Your task to perform on an android device: Open Amazon Image 0: 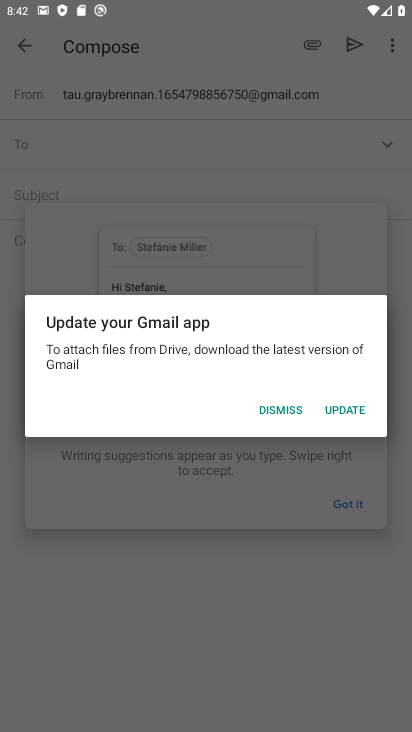
Step 0: press home button
Your task to perform on an android device: Open Amazon Image 1: 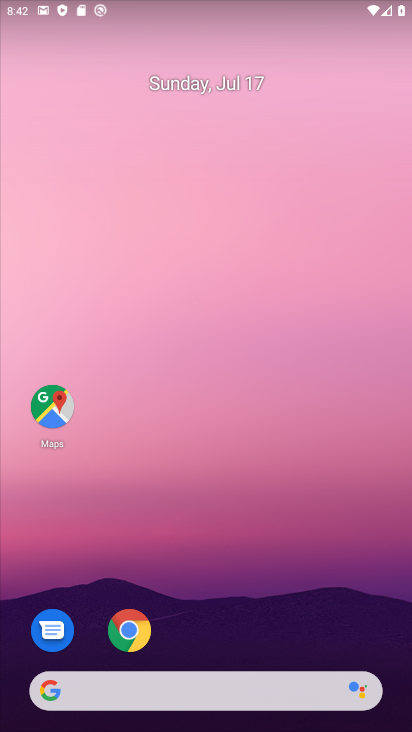
Step 1: drag from (349, 636) to (386, 128)
Your task to perform on an android device: Open Amazon Image 2: 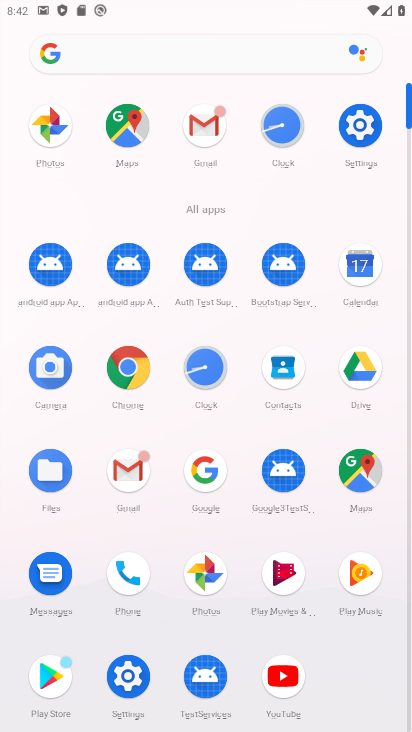
Step 2: click (131, 368)
Your task to perform on an android device: Open Amazon Image 3: 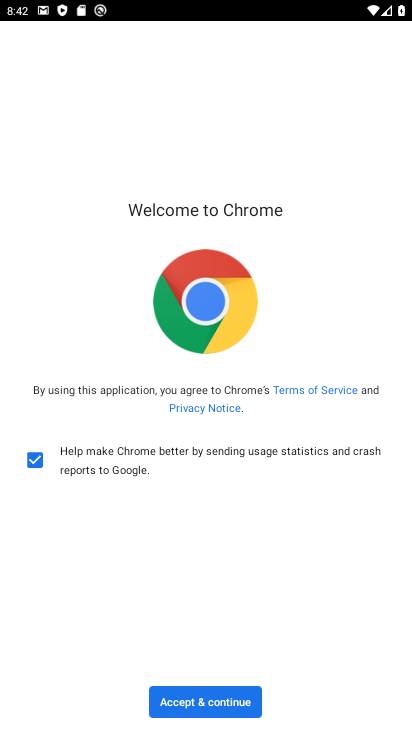
Step 3: click (207, 705)
Your task to perform on an android device: Open Amazon Image 4: 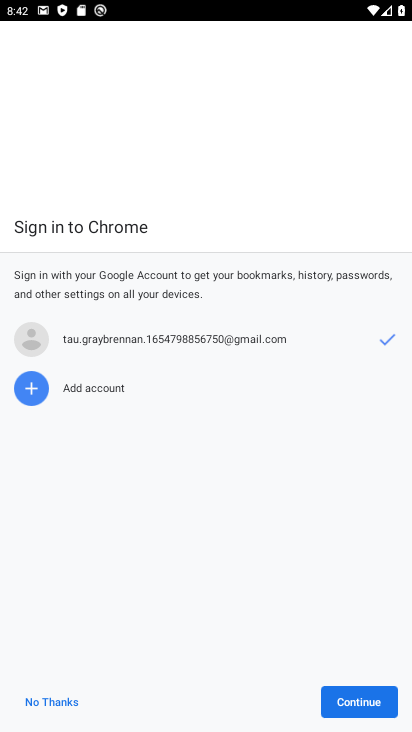
Step 4: click (352, 707)
Your task to perform on an android device: Open Amazon Image 5: 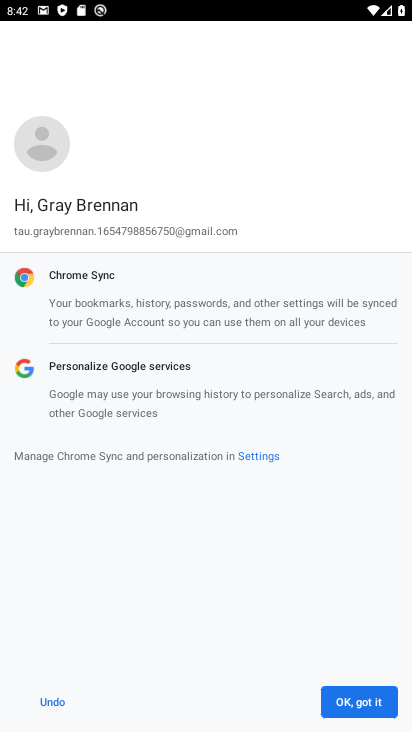
Step 5: click (352, 707)
Your task to perform on an android device: Open Amazon Image 6: 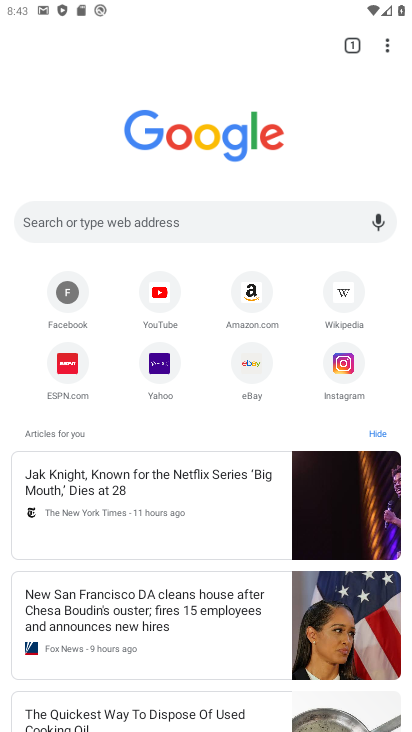
Step 6: click (303, 229)
Your task to perform on an android device: Open Amazon Image 7: 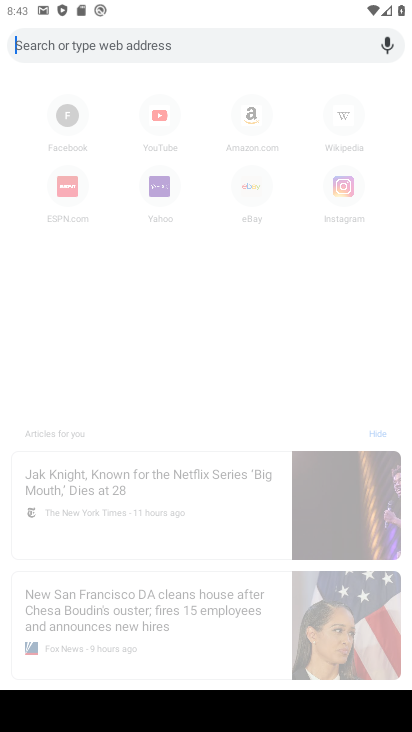
Step 7: type "amazon"
Your task to perform on an android device: Open Amazon Image 8: 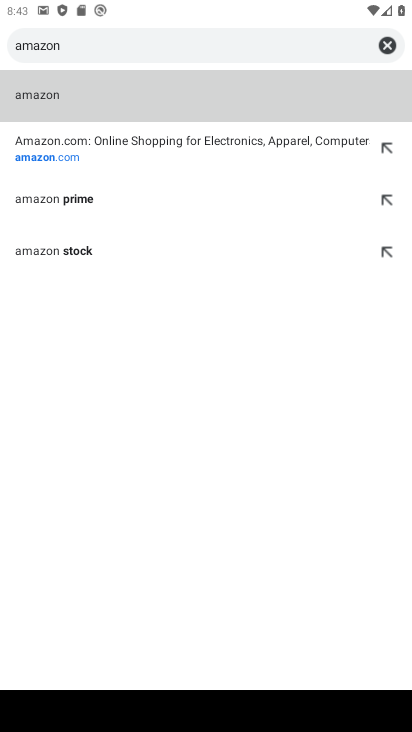
Step 8: click (266, 95)
Your task to perform on an android device: Open Amazon Image 9: 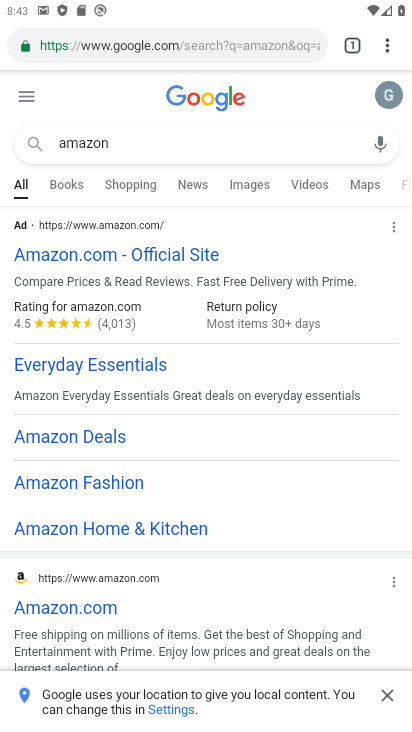
Step 9: task complete